Your task to perform on an android device: Open calendar and show me the third week of next month Image 0: 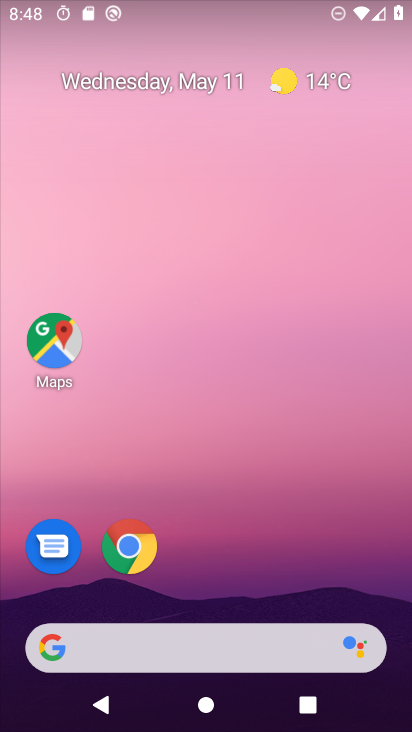
Step 0: drag from (196, 634) to (174, 83)
Your task to perform on an android device: Open calendar and show me the third week of next month Image 1: 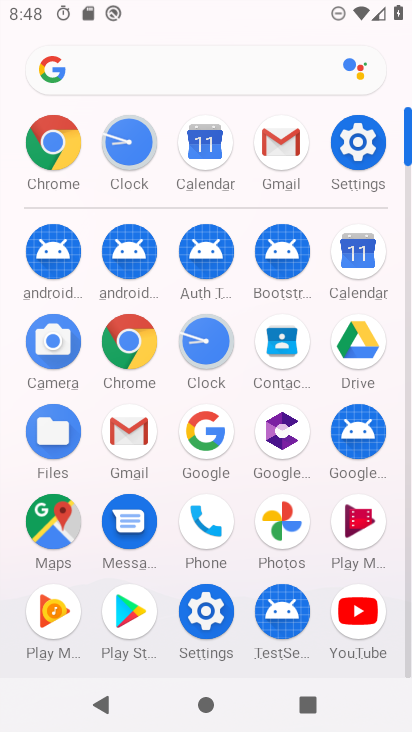
Step 1: click (359, 258)
Your task to perform on an android device: Open calendar and show me the third week of next month Image 2: 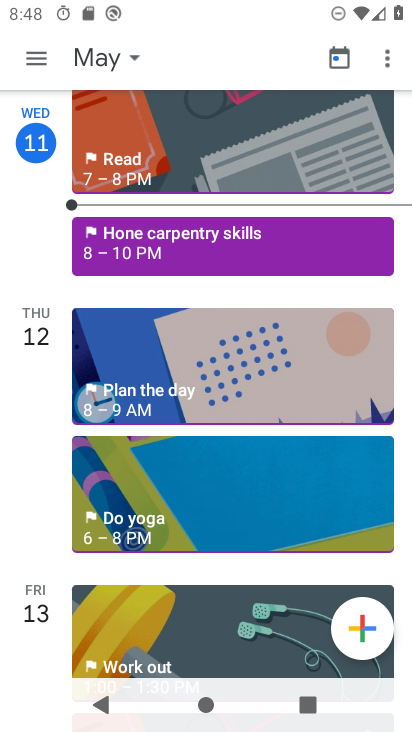
Step 2: click (359, 258)
Your task to perform on an android device: Open calendar and show me the third week of next month Image 3: 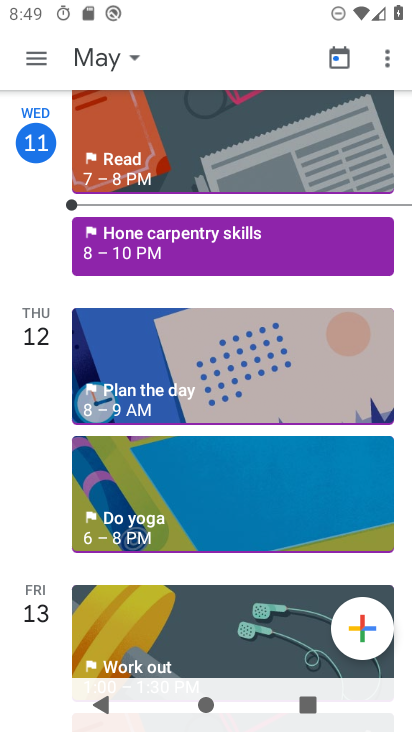
Step 3: click (30, 67)
Your task to perform on an android device: Open calendar and show me the third week of next month Image 4: 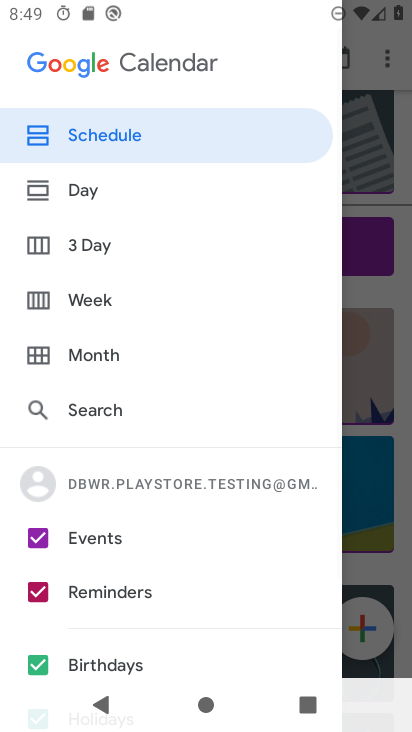
Step 4: click (96, 350)
Your task to perform on an android device: Open calendar and show me the third week of next month Image 5: 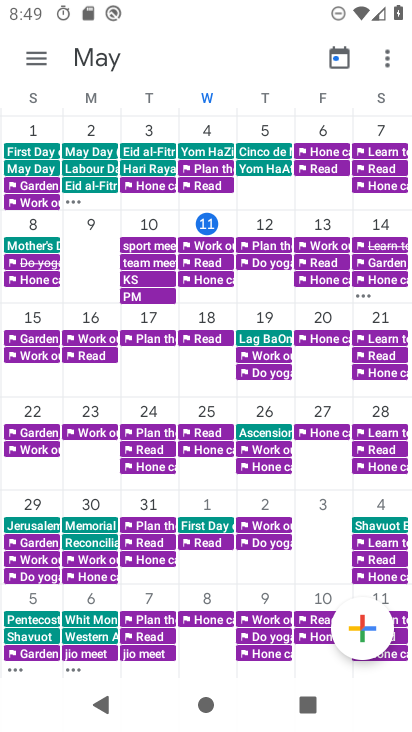
Step 5: task complete